Your task to perform on an android device: add a contact Image 0: 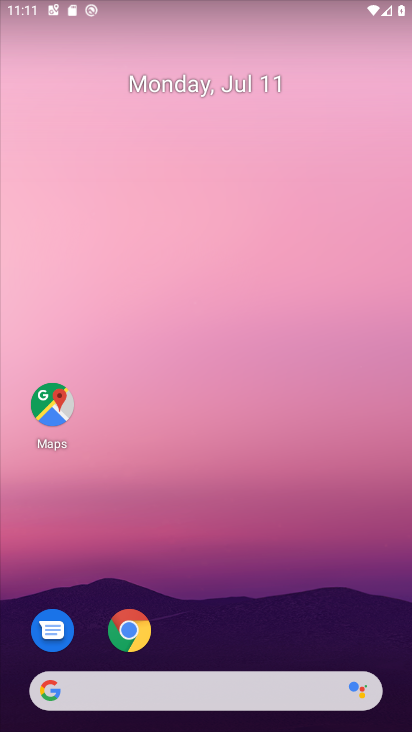
Step 0: drag from (222, 664) to (207, 6)
Your task to perform on an android device: add a contact Image 1: 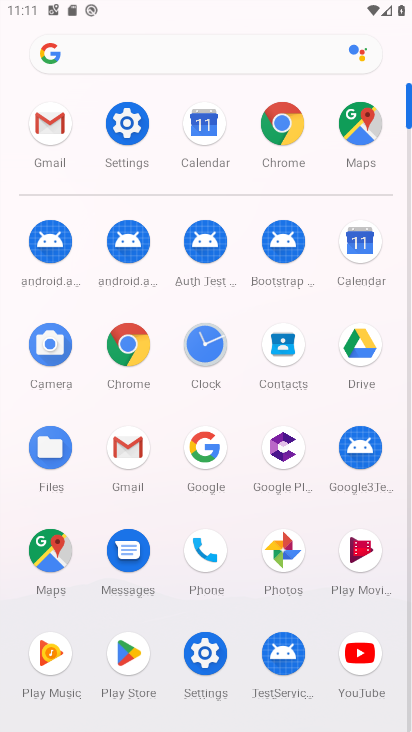
Step 1: click (290, 360)
Your task to perform on an android device: add a contact Image 2: 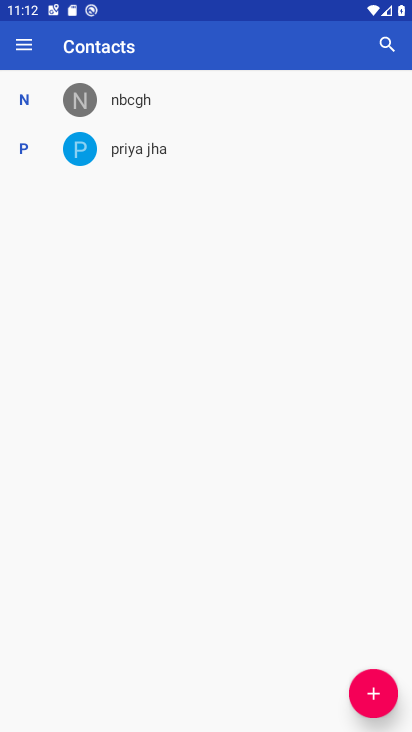
Step 2: click (383, 703)
Your task to perform on an android device: add a contact Image 3: 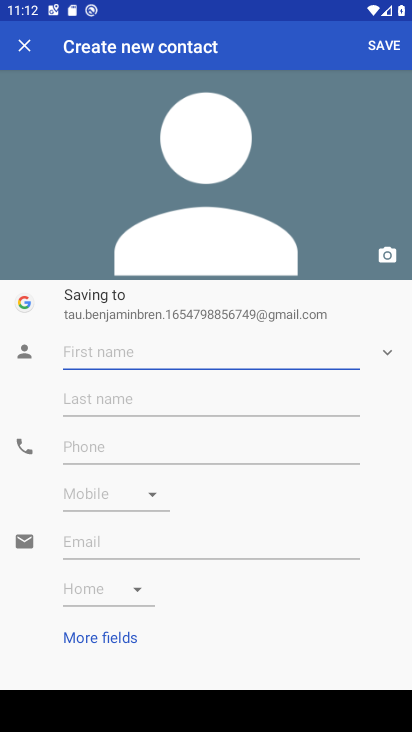
Step 3: type "freak"
Your task to perform on an android device: add a contact Image 4: 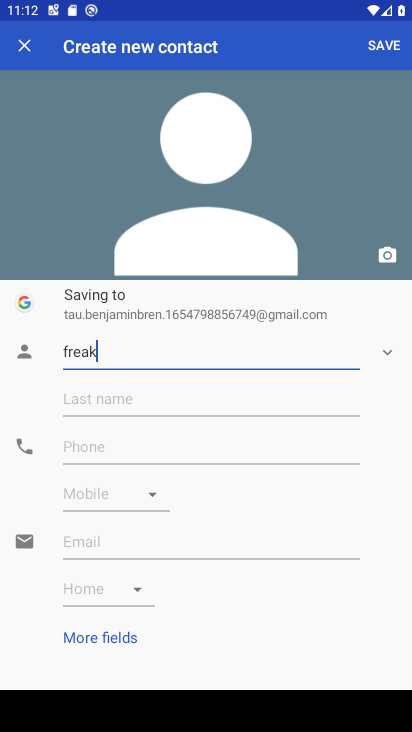
Step 4: click (372, 49)
Your task to perform on an android device: add a contact Image 5: 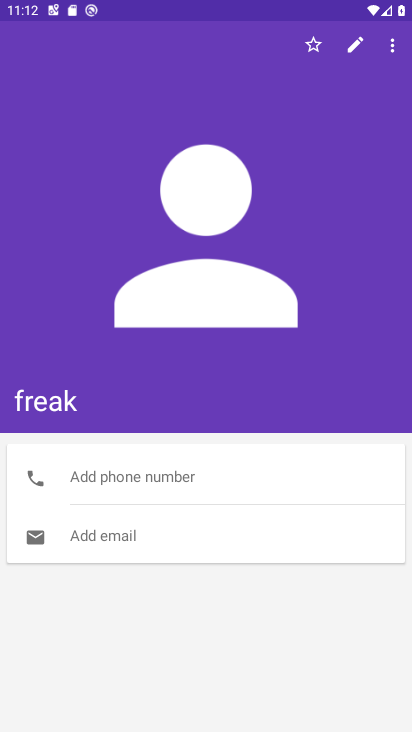
Step 5: task complete